Your task to perform on an android device: Open Chrome and go to the settings page Image 0: 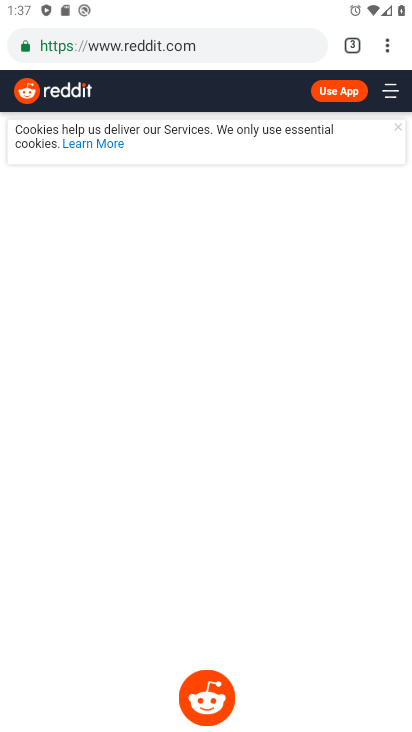
Step 0: press home button
Your task to perform on an android device: Open Chrome and go to the settings page Image 1: 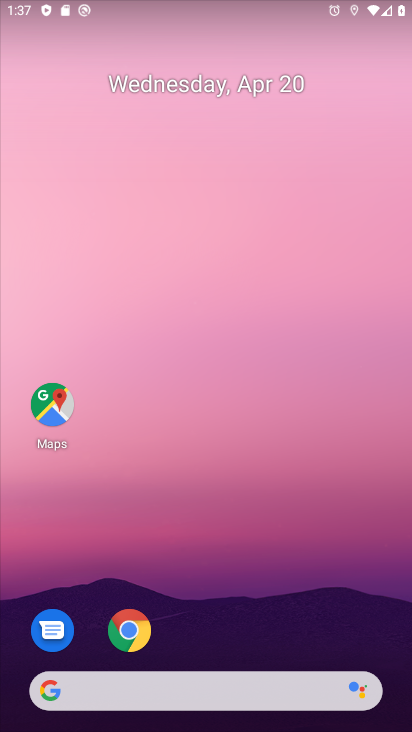
Step 1: click (126, 635)
Your task to perform on an android device: Open Chrome and go to the settings page Image 2: 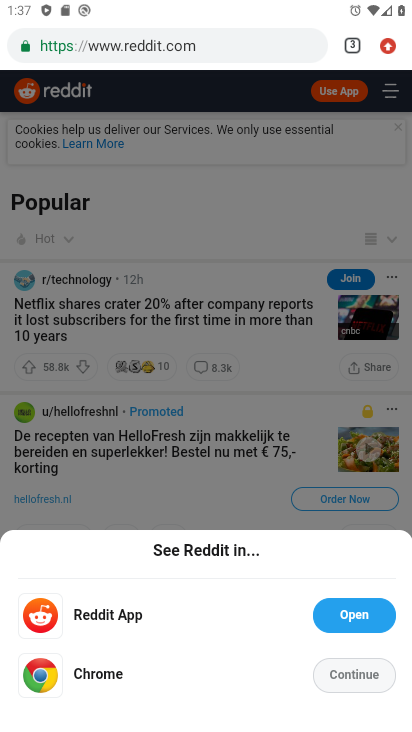
Step 2: task complete